Your task to perform on an android device: turn pop-ups on in chrome Image 0: 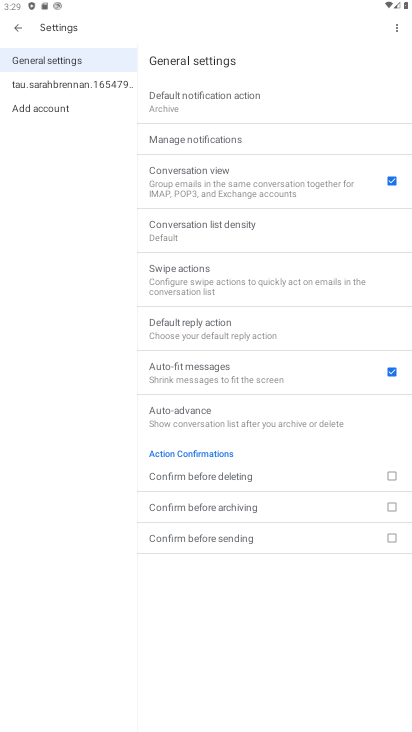
Step 0: press home button
Your task to perform on an android device: turn pop-ups on in chrome Image 1: 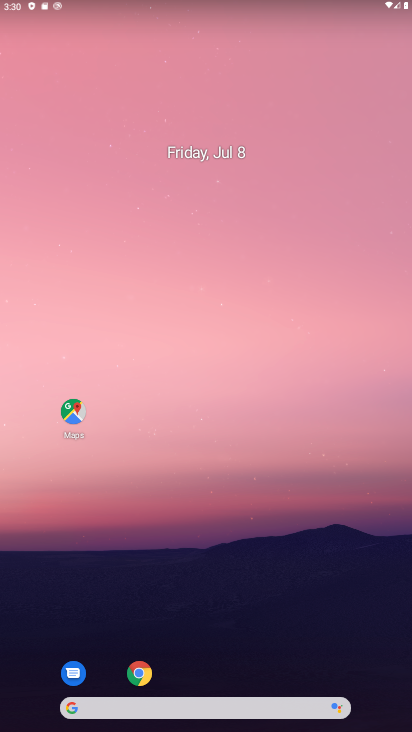
Step 1: click (134, 672)
Your task to perform on an android device: turn pop-ups on in chrome Image 2: 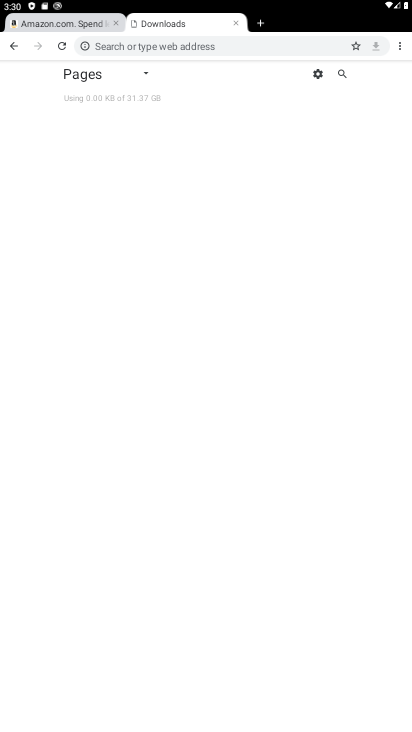
Step 2: click (400, 46)
Your task to perform on an android device: turn pop-ups on in chrome Image 3: 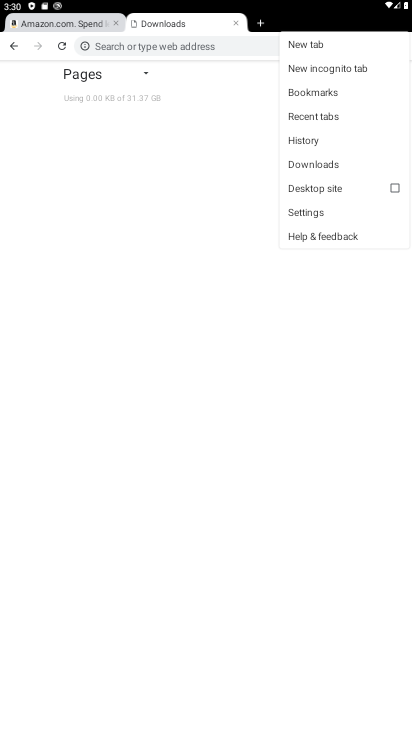
Step 3: click (300, 210)
Your task to perform on an android device: turn pop-ups on in chrome Image 4: 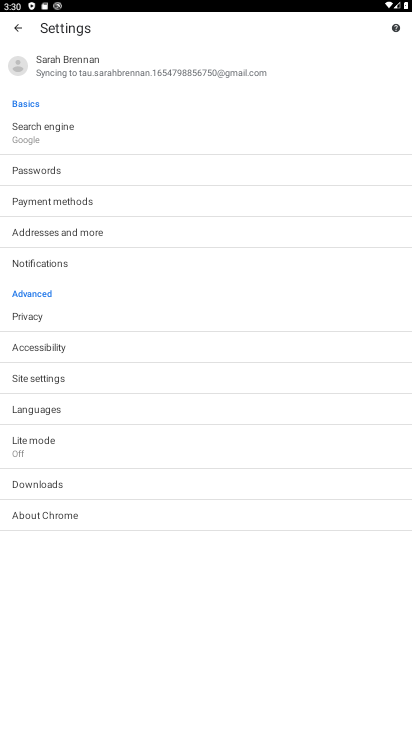
Step 4: click (60, 377)
Your task to perform on an android device: turn pop-ups on in chrome Image 5: 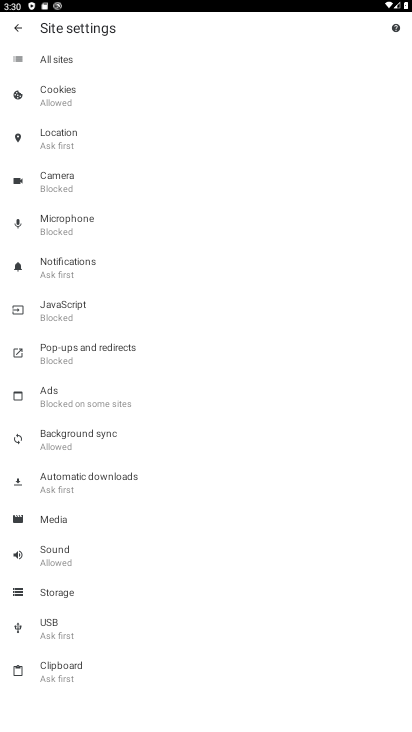
Step 5: click (51, 350)
Your task to perform on an android device: turn pop-ups on in chrome Image 6: 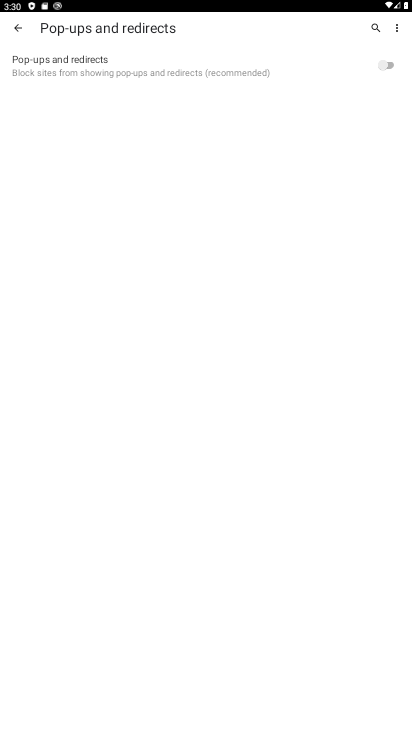
Step 6: click (383, 65)
Your task to perform on an android device: turn pop-ups on in chrome Image 7: 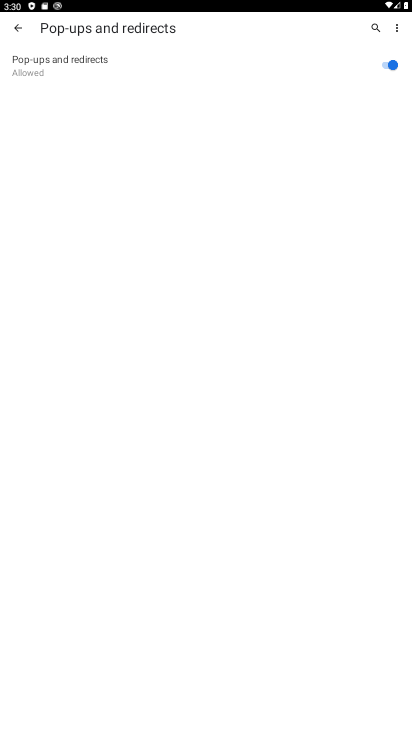
Step 7: task complete